Your task to perform on an android device: Go to Yahoo.com Image 0: 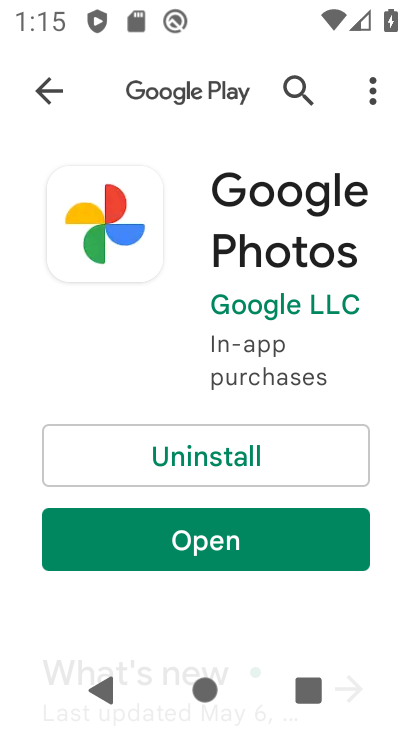
Step 0: press home button
Your task to perform on an android device: Go to Yahoo.com Image 1: 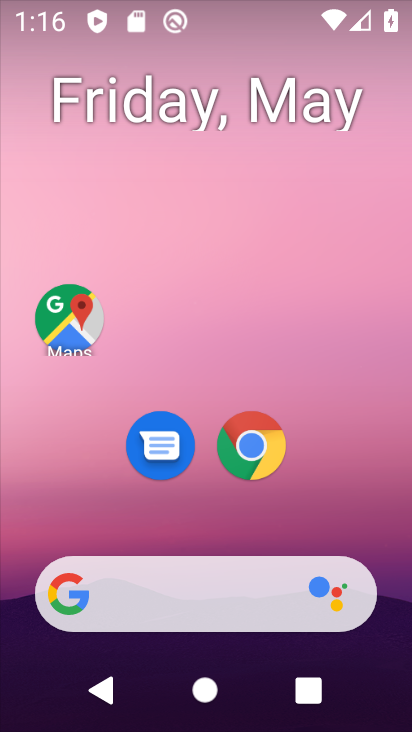
Step 1: click (261, 446)
Your task to perform on an android device: Go to Yahoo.com Image 2: 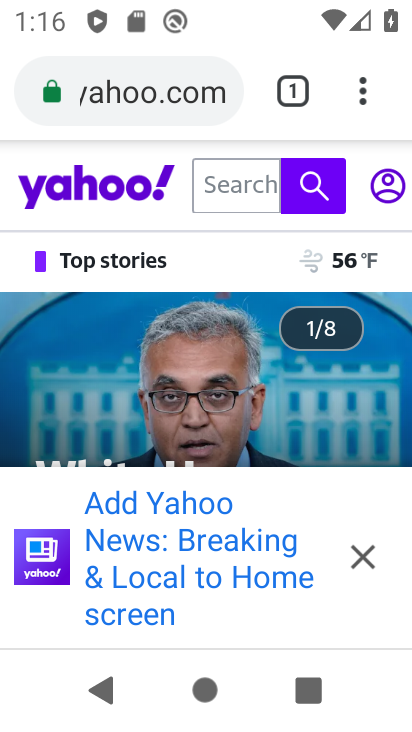
Step 2: task complete